Your task to perform on an android device: delete the emails in spam in the gmail app Image 0: 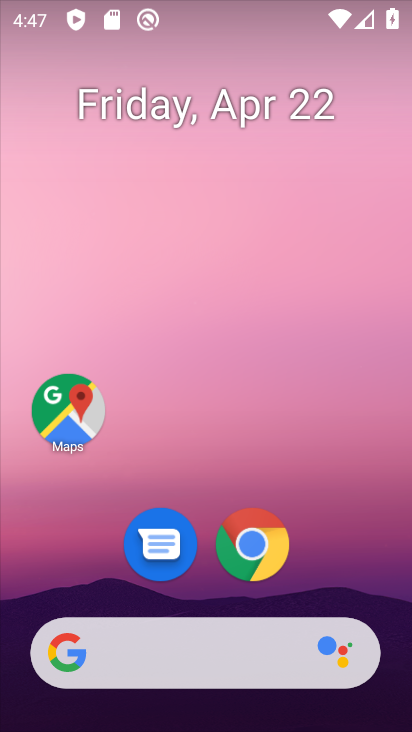
Step 0: drag from (204, 570) to (213, 238)
Your task to perform on an android device: delete the emails in spam in the gmail app Image 1: 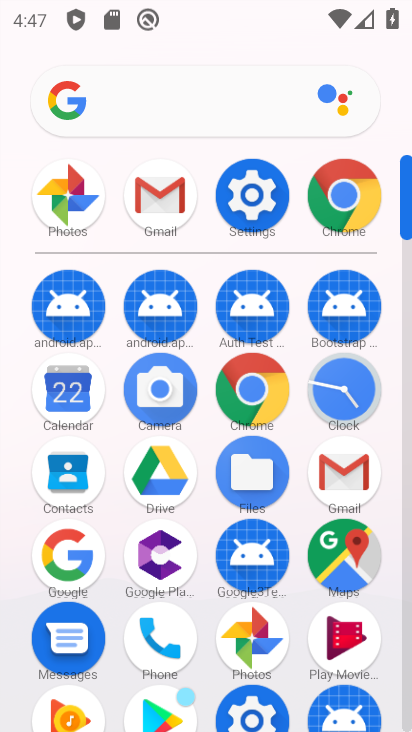
Step 1: click (169, 197)
Your task to perform on an android device: delete the emails in spam in the gmail app Image 2: 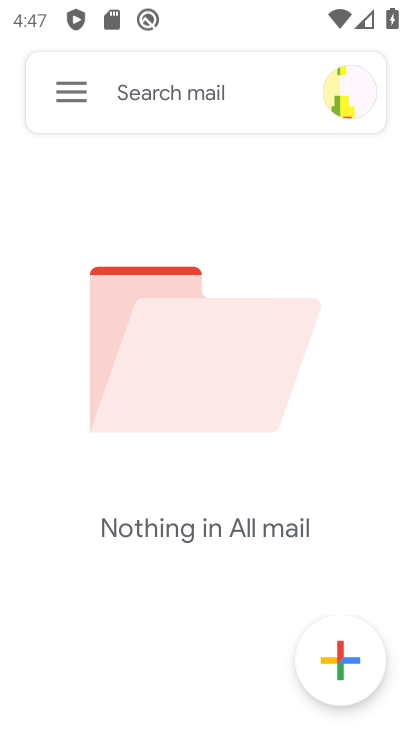
Step 2: click (77, 97)
Your task to perform on an android device: delete the emails in spam in the gmail app Image 3: 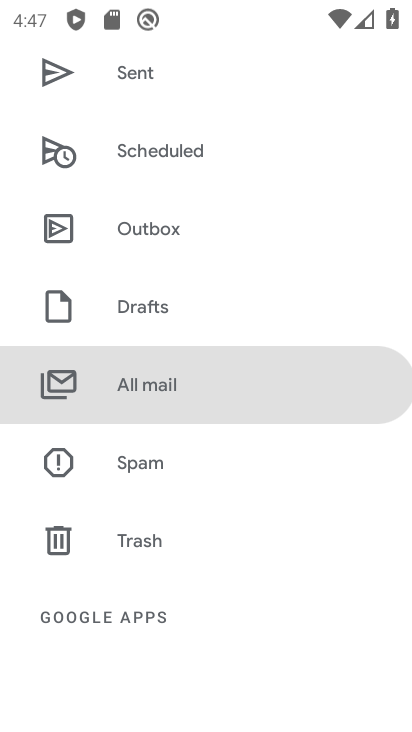
Step 3: click (125, 458)
Your task to perform on an android device: delete the emails in spam in the gmail app Image 4: 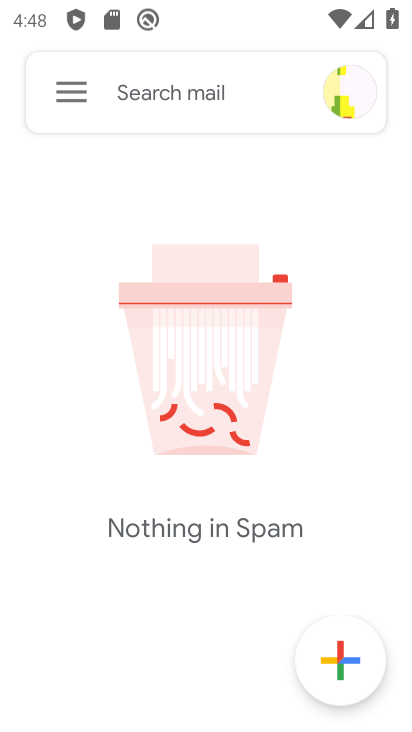
Step 4: task complete